Your task to perform on an android device: turn on bluetooth scan Image 0: 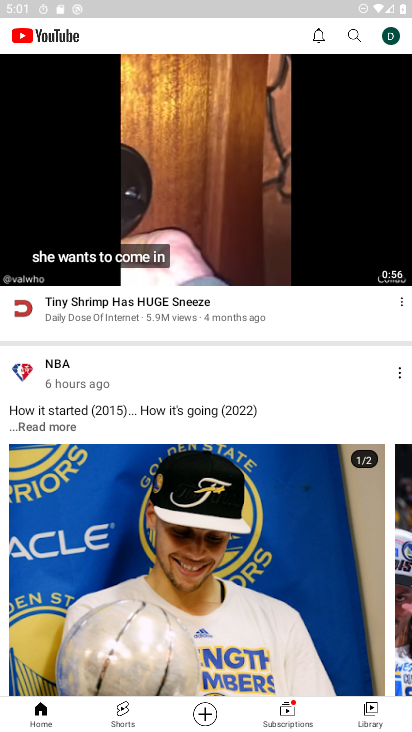
Step 0: press home button
Your task to perform on an android device: turn on bluetooth scan Image 1: 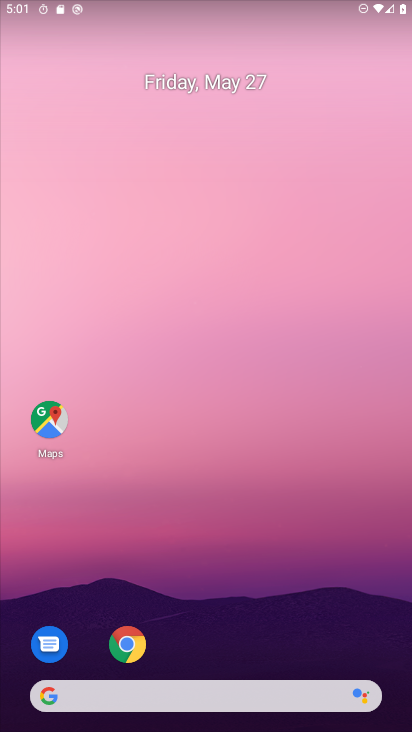
Step 1: drag from (165, 673) to (307, 0)
Your task to perform on an android device: turn on bluetooth scan Image 2: 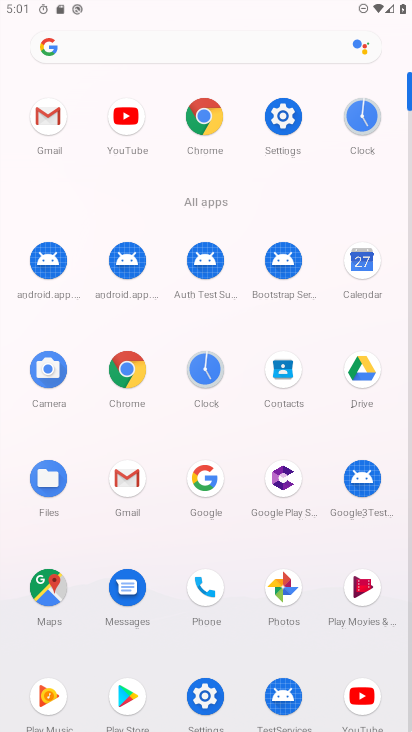
Step 2: click (288, 121)
Your task to perform on an android device: turn on bluetooth scan Image 3: 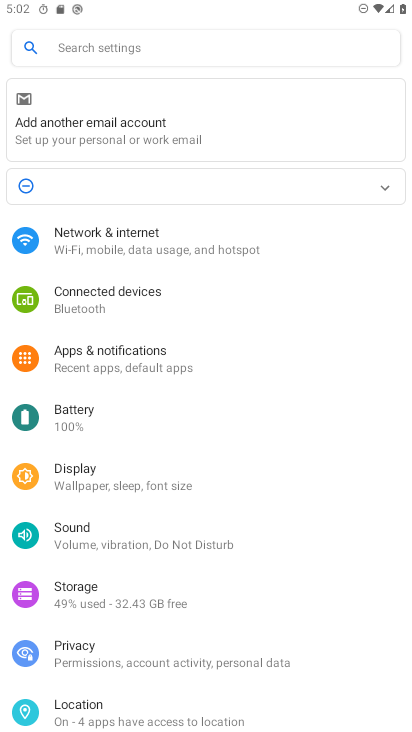
Step 3: click (83, 708)
Your task to perform on an android device: turn on bluetooth scan Image 4: 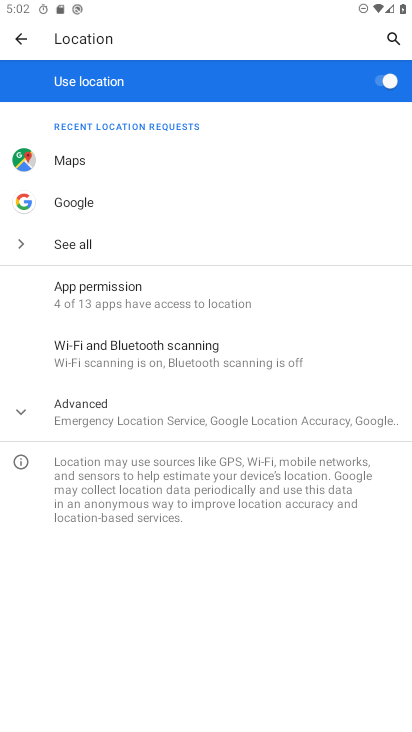
Step 4: click (147, 362)
Your task to perform on an android device: turn on bluetooth scan Image 5: 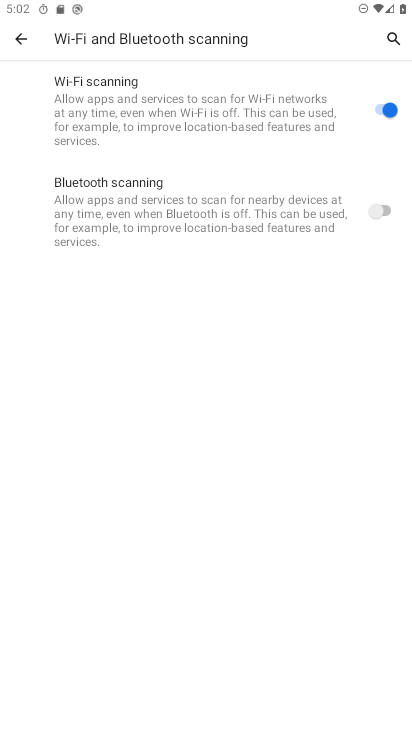
Step 5: click (386, 213)
Your task to perform on an android device: turn on bluetooth scan Image 6: 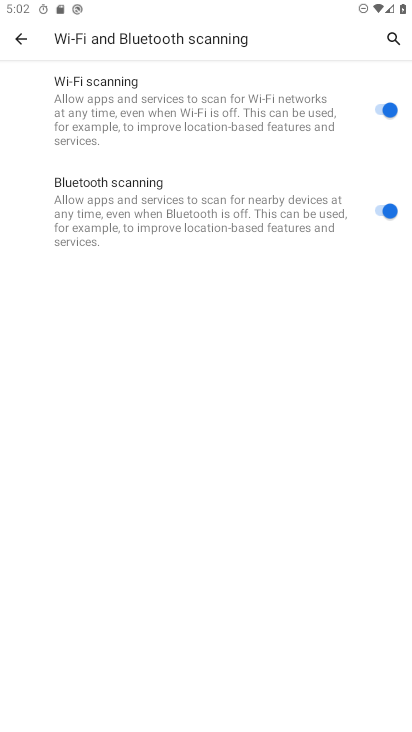
Step 6: task complete